Your task to perform on an android device: open app "Life360: Find Family & Friends" (install if not already installed) and go to login screen Image 0: 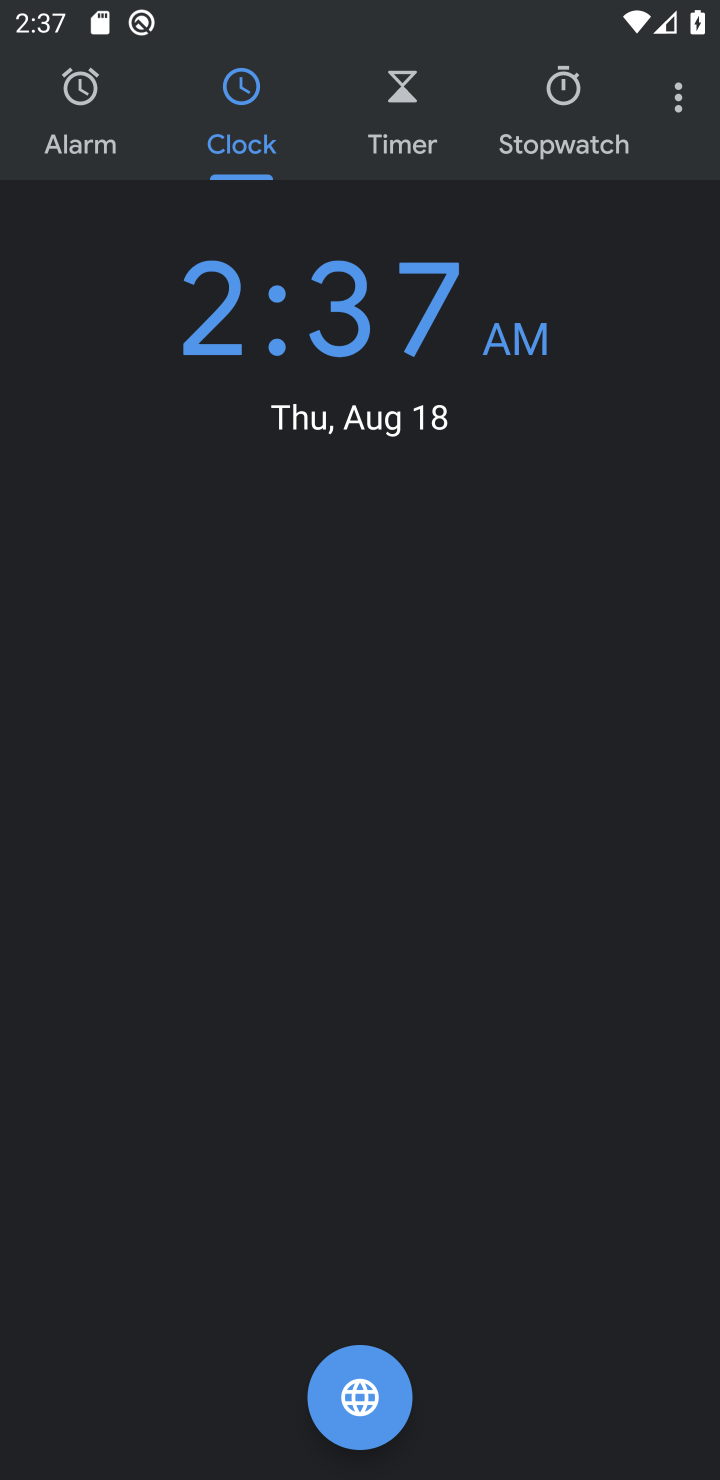
Step 0: press home button
Your task to perform on an android device: open app "Life360: Find Family & Friends" (install if not already installed) and go to login screen Image 1: 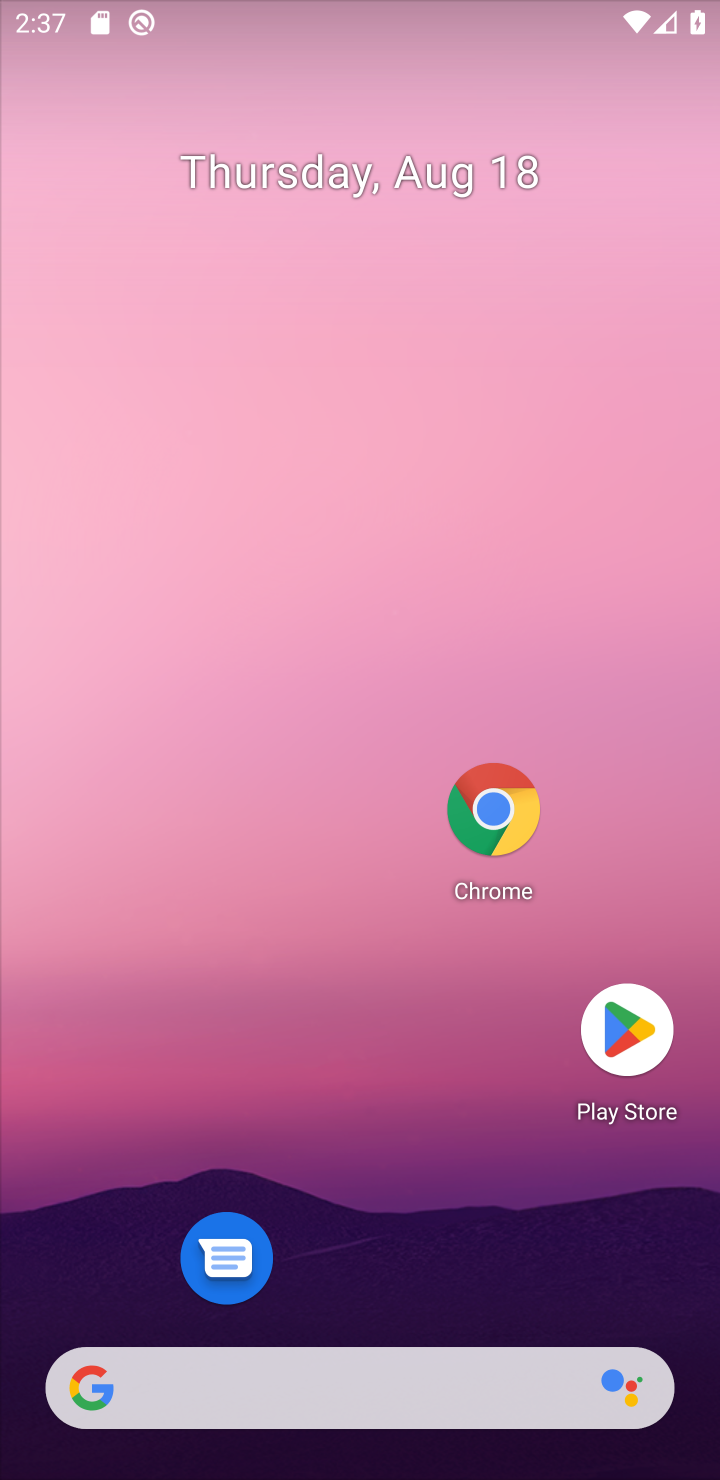
Step 1: click (634, 1037)
Your task to perform on an android device: open app "Life360: Find Family & Friends" (install if not already installed) and go to login screen Image 2: 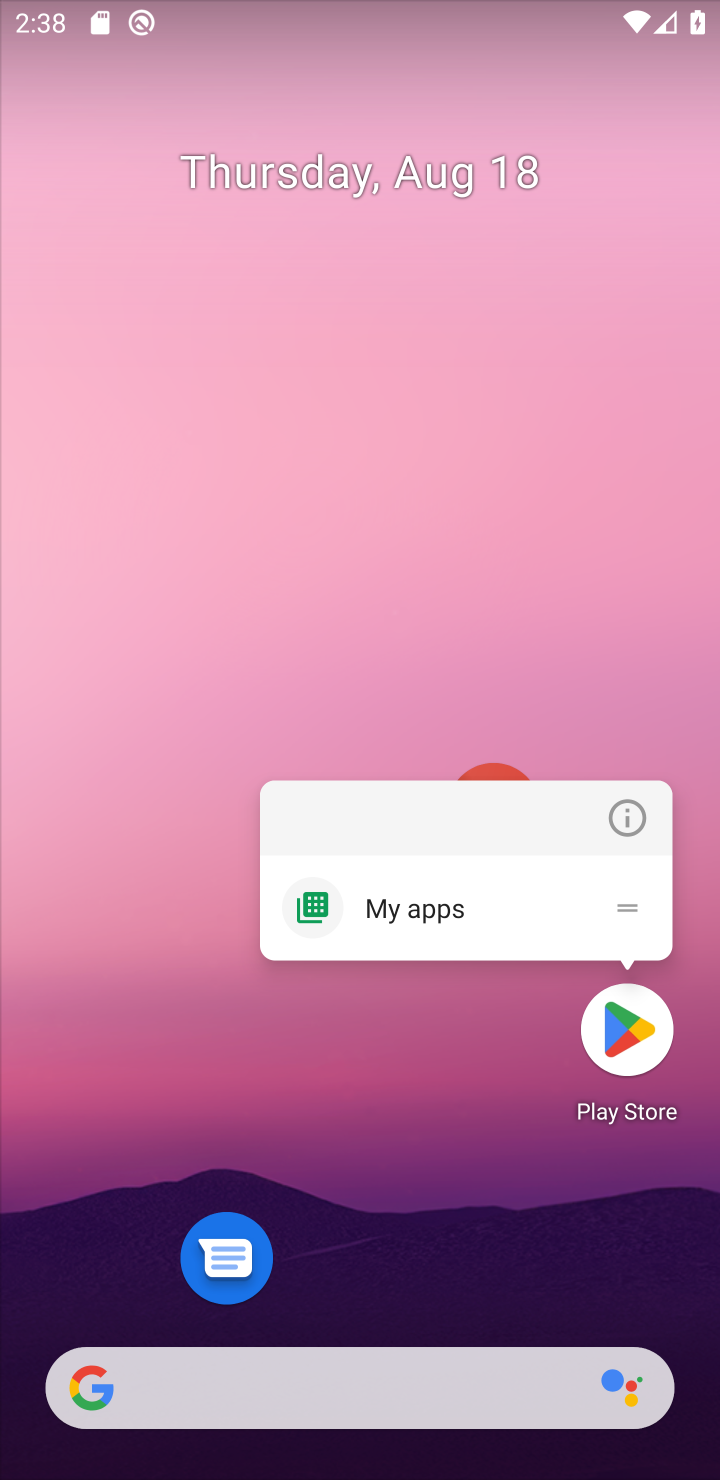
Step 2: click (634, 1037)
Your task to perform on an android device: open app "Life360: Find Family & Friends" (install if not already installed) and go to login screen Image 3: 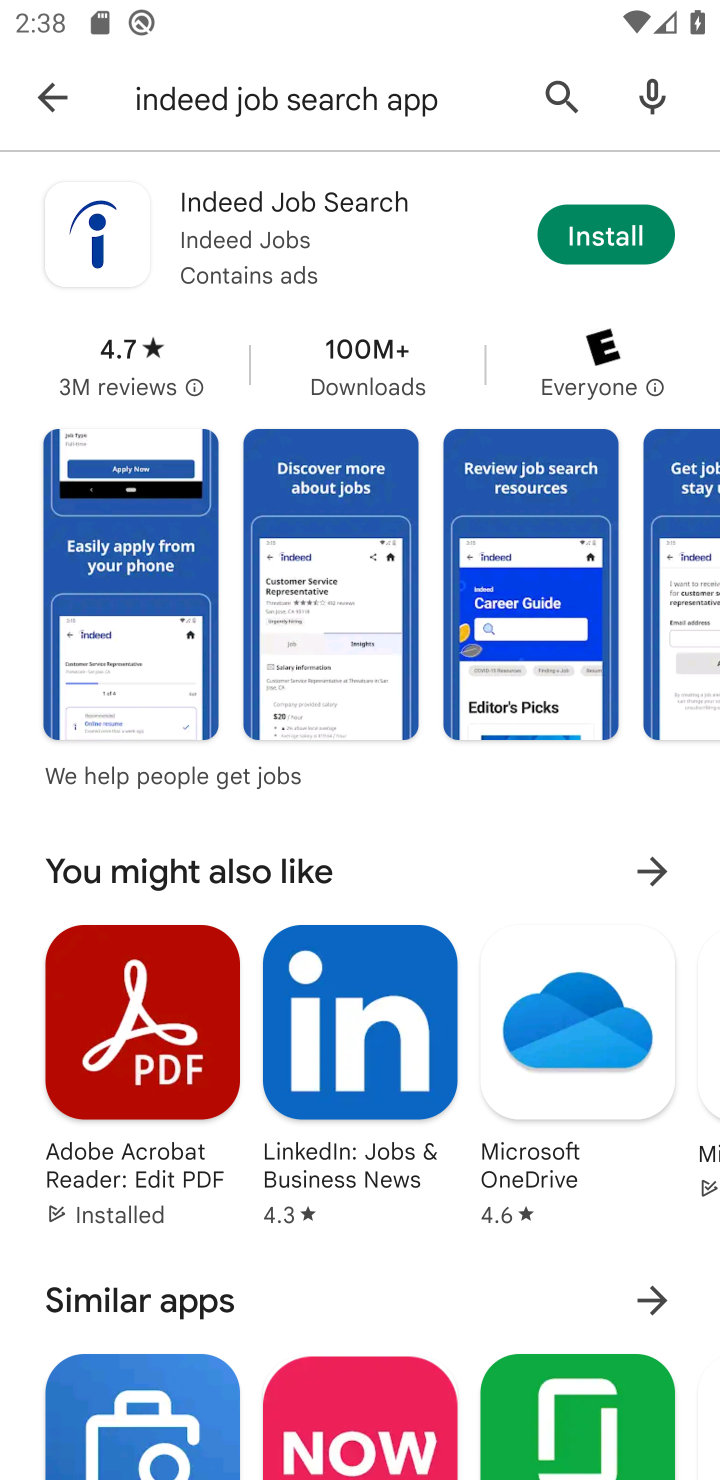
Step 3: click (42, 67)
Your task to perform on an android device: open app "Life360: Find Family & Friends" (install if not already installed) and go to login screen Image 4: 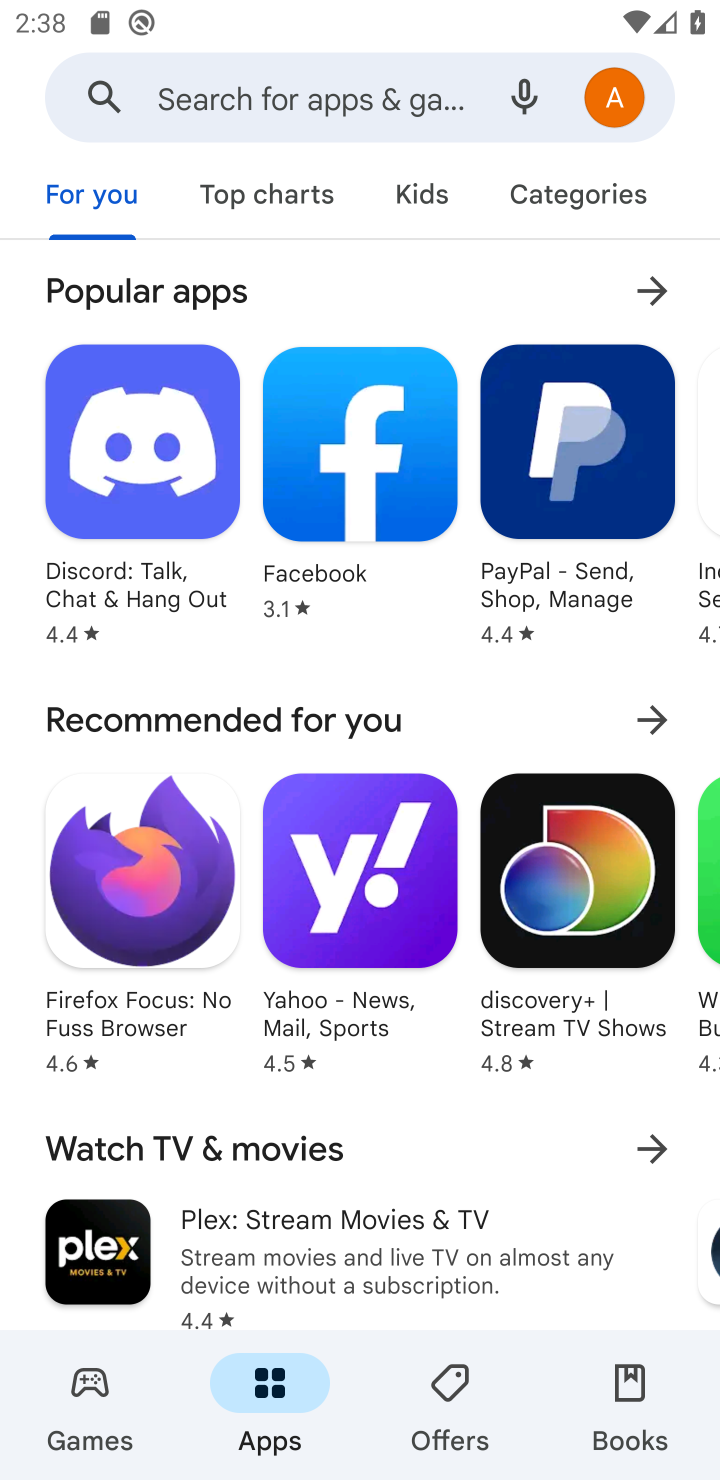
Step 4: click (297, 83)
Your task to perform on an android device: open app "Life360: Find Family & Friends" (install if not already installed) and go to login screen Image 5: 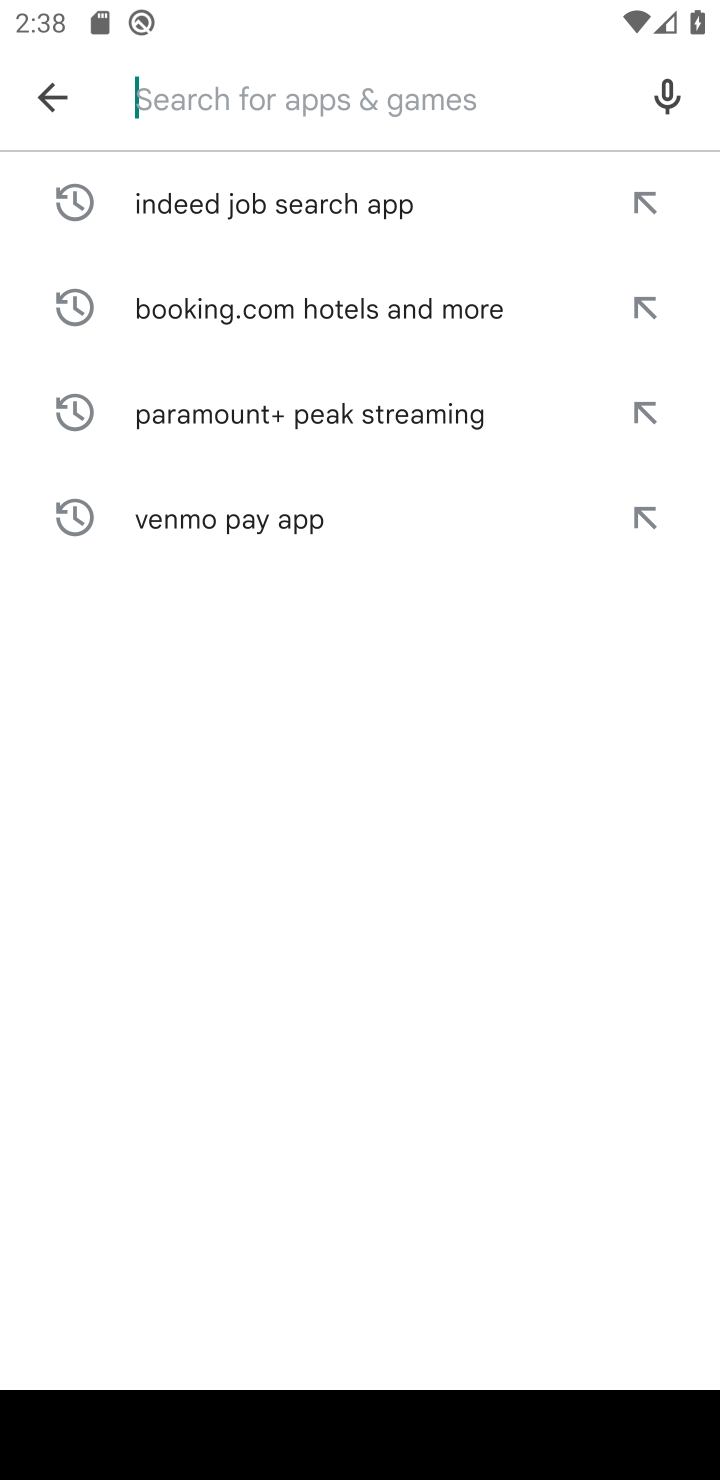
Step 5: type "Life360: Find Family & Friends "
Your task to perform on an android device: open app "Life360: Find Family & Friends" (install if not already installed) and go to login screen Image 6: 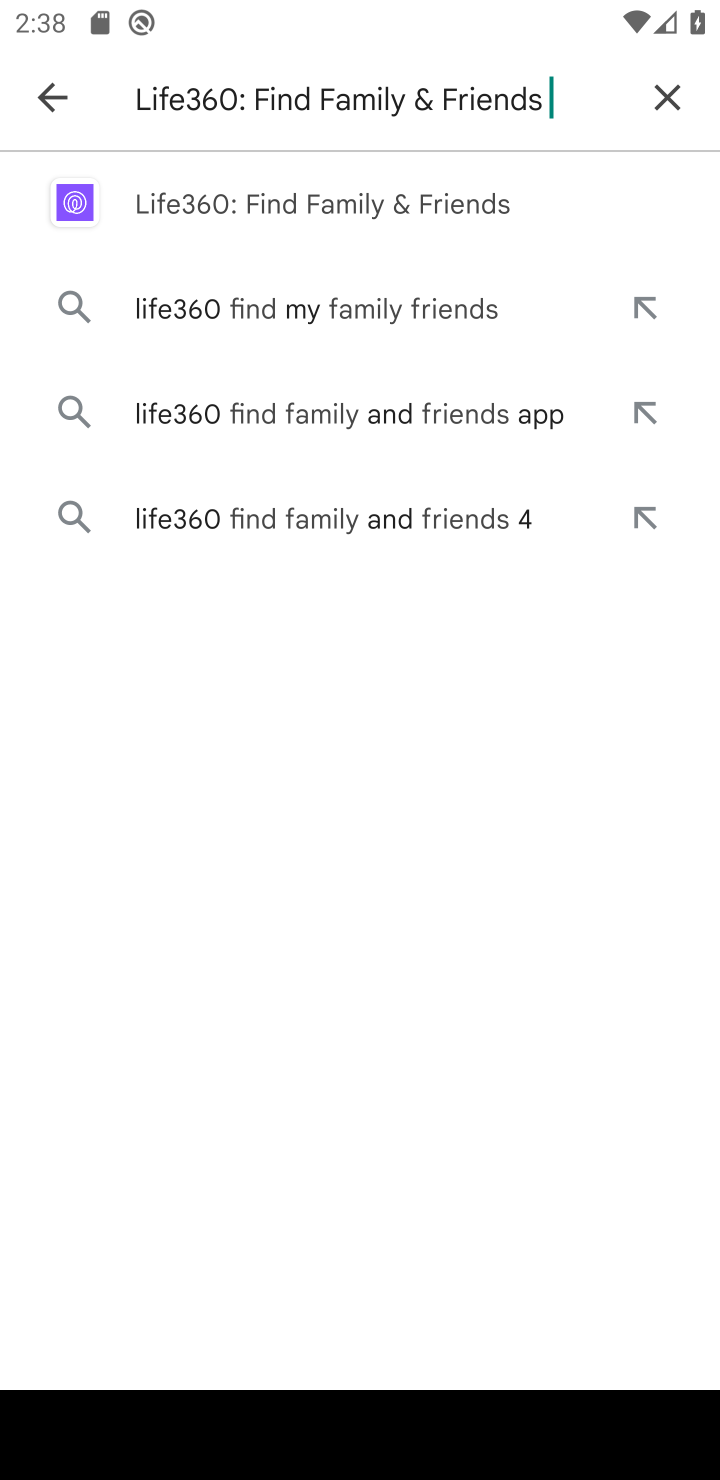
Step 6: click (226, 218)
Your task to perform on an android device: open app "Life360: Find Family & Friends" (install if not already installed) and go to login screen Image 7: 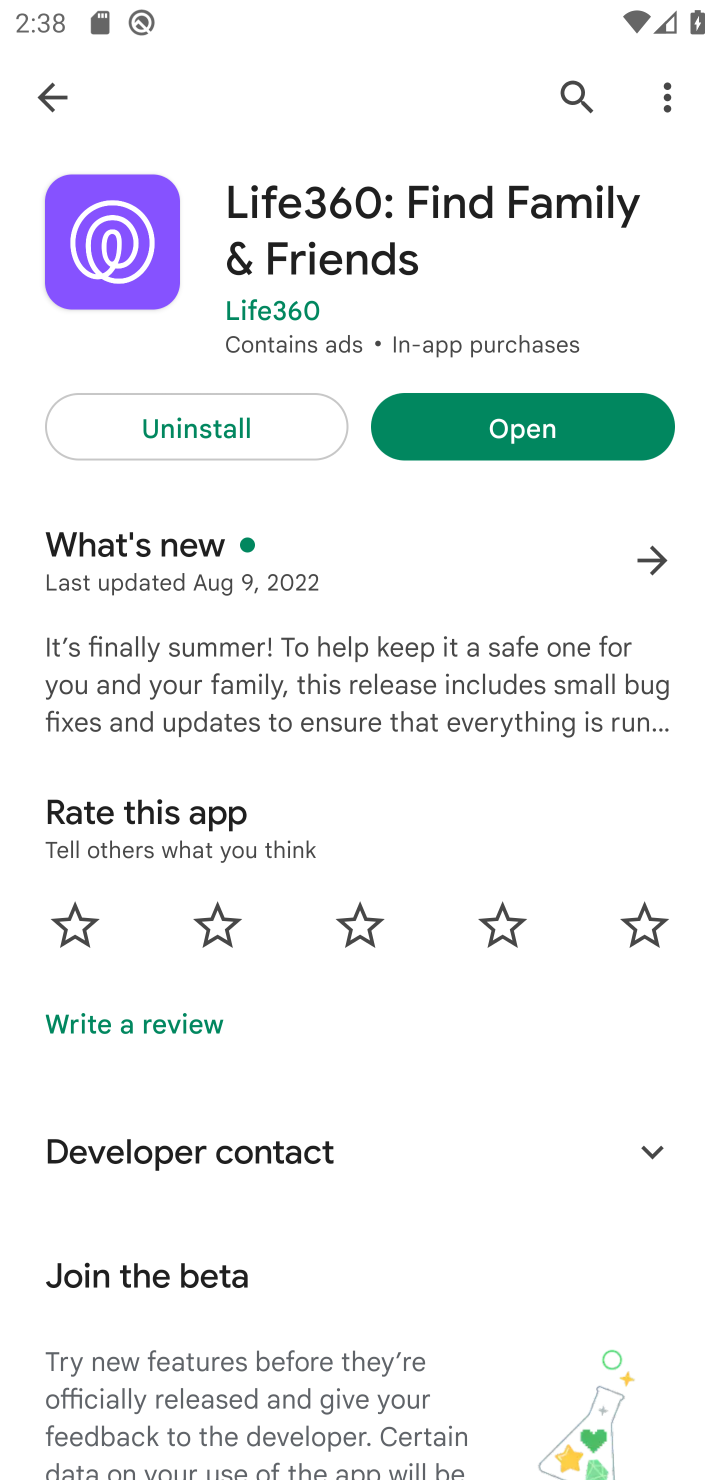
Step 7: click (495, 419)
Your task to perform on an android device: open app "Life360: Find Family & Friends" (install if not already installed) and go to login screen Image 8: 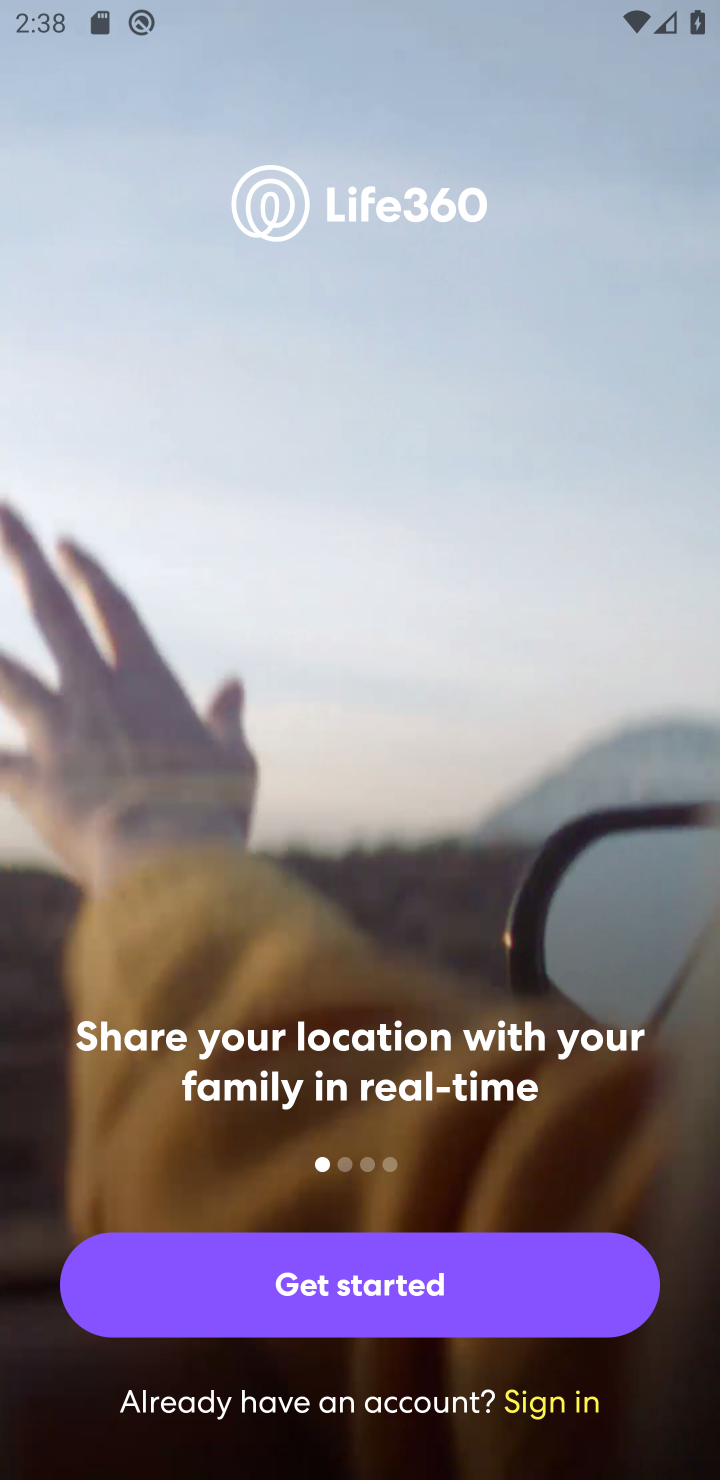
Step 8: task complete